Your task to perform on an android device: toggle pop-ups in chrome Image 0: 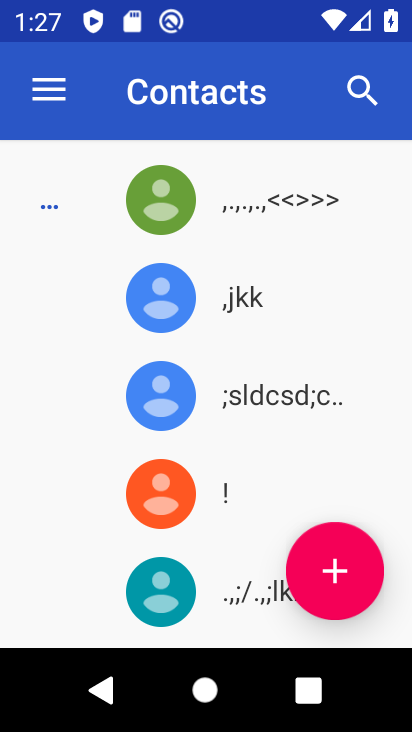
Step 0: press home button
Your task to perform on an android device: toggle pop-ups in chrome Image 1: 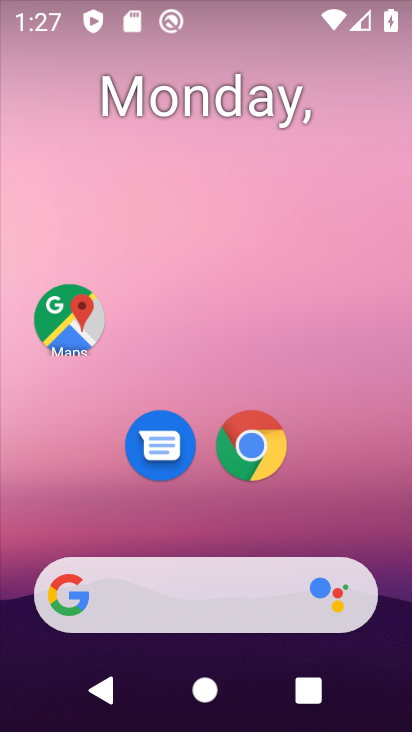
Step 1: click (261, 445)
Your task to perform on an android device: toggle pop-ups in chrome Image 2: 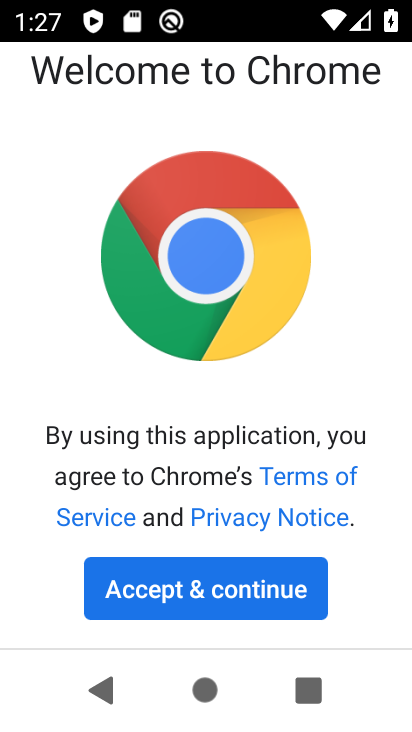
Step 2: click (181, 598)
Your task to perform on an android device: toggle pop-ups in chrome Image 3: 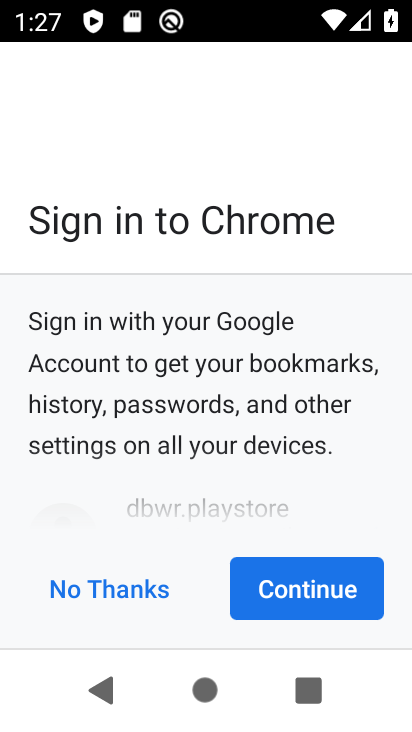
Step 3: click (304, 579)
Your task to perform on an android device: toggle pop-ups in chrome Image 4: 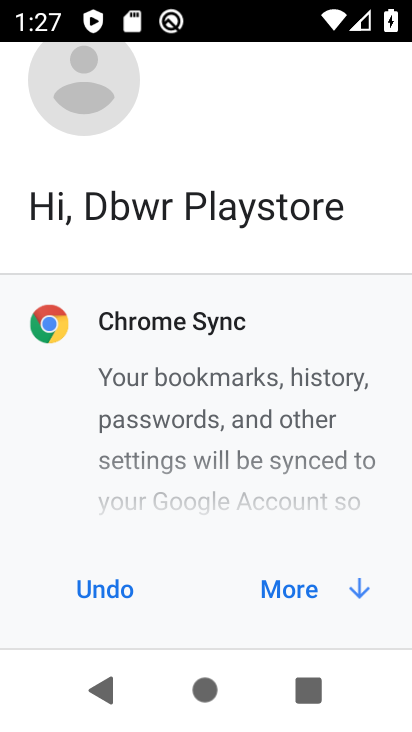
Step 4: click (304, 579)
Your task to perform on an android device: toggle pop-ups in chrome Image 5: 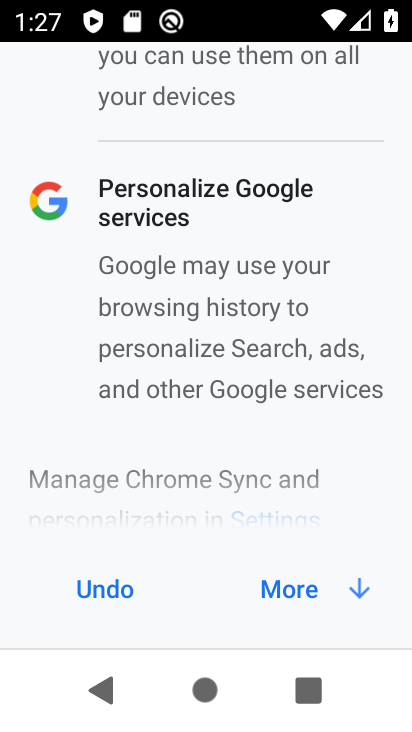
Step 5: click (311, 575)
Your task to perform on an android device: toggle pop-ups in chrome Image 6: 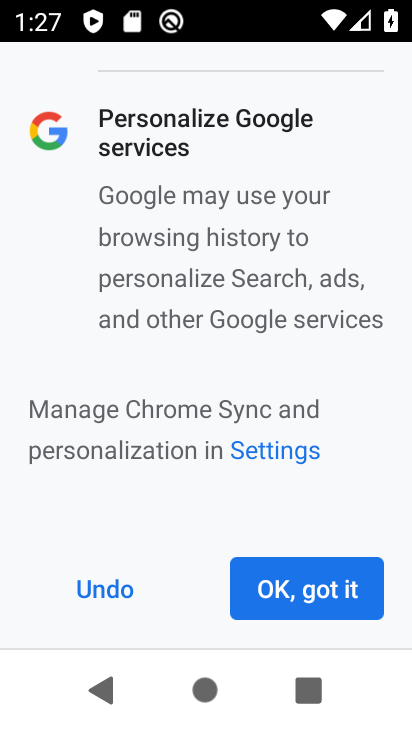
Step 6: click (311, 575)
Your task to perform on an android device: toggle pop-ups in chrome Image 7: 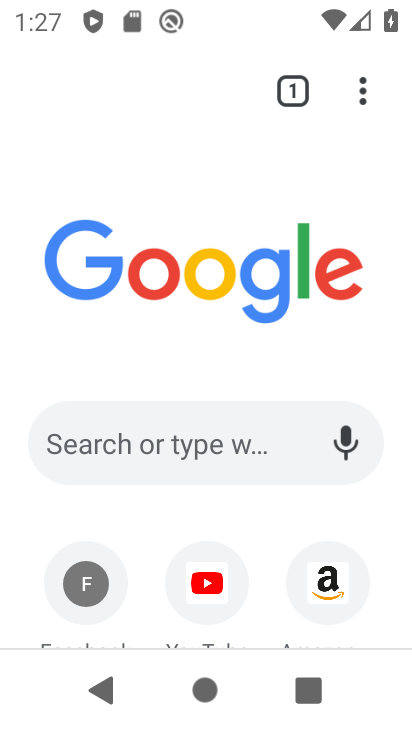
Step 7: click (351, 97)
Your task to perform on an android device: toggle pop-ups in chrome Image 8: 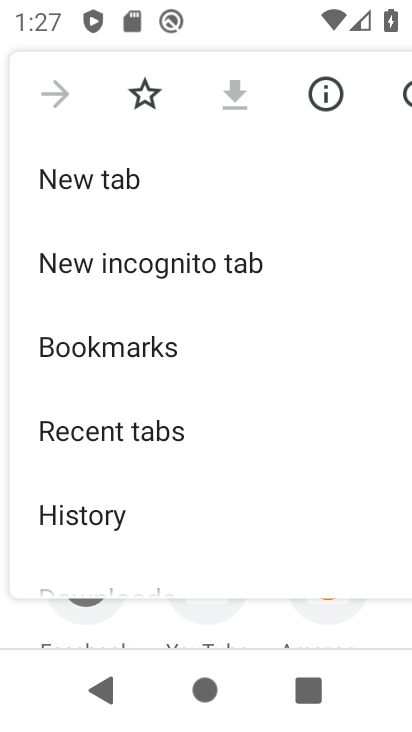
Step 8: drag from (185, 504) to (160, 128)
Your task to perform on an android device: toggle pop-ups in chrome Image 9: 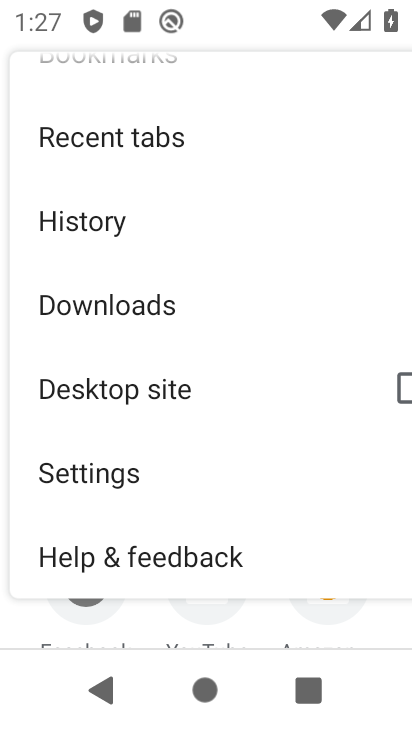
Step 9: click (115, 462)
Your task to perform on an android device: toggle pop-ups in chrome Image 10: 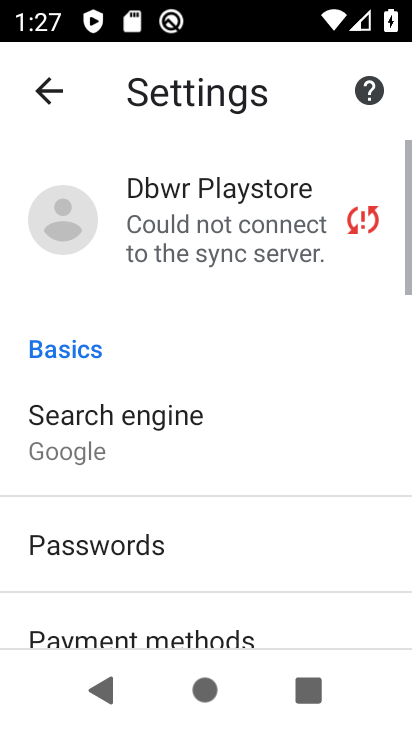
Step 10: drag from (232, 550) to (215, 179)
Your task to perform on an android device: toggle pop-ups in chrome Image 11: 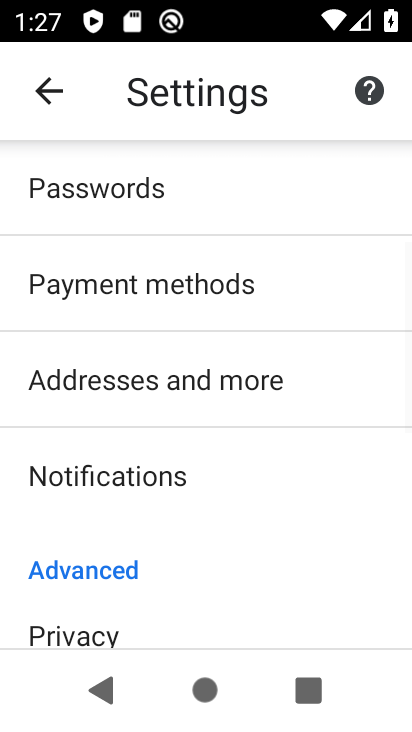
Step 11: drag from (239, 583) to (219, 217)
Your task to perform on an android device: toggle pop-ups in chrome Image 12: 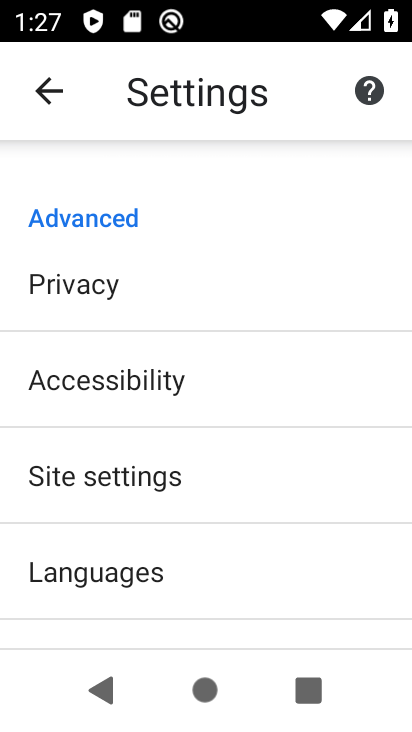
Step 12: click (146, 486)
Your task to perform on an android device: toggle pop-ups in chrome Image 13: 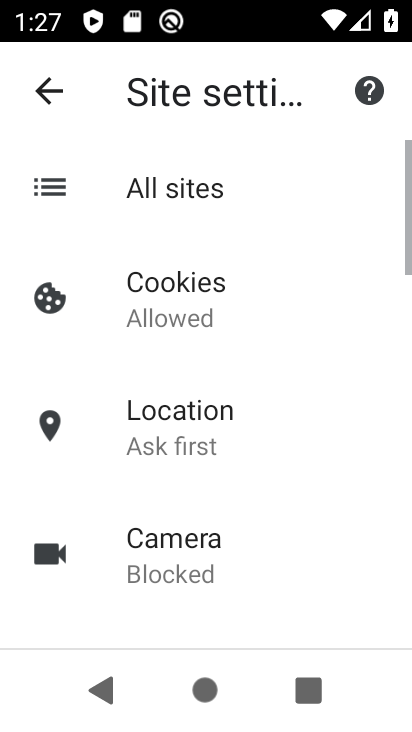
Step 13: drag from (219, 180) to (230, 145)
Your task to perform on an android device: toggle pop-ups in chrome Image 14: 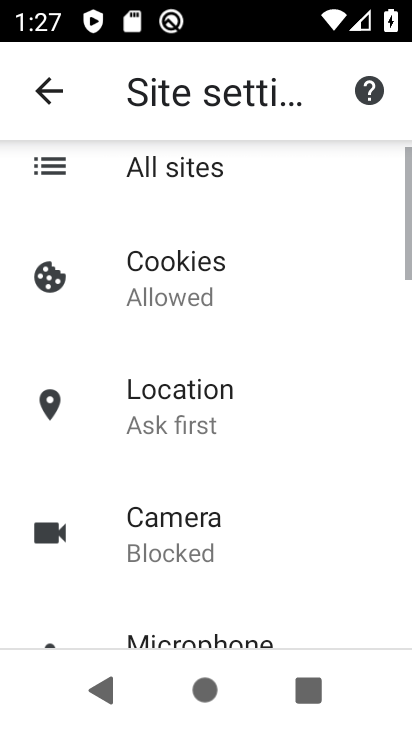
Step 14: drag from (234, 572) to (249, 241)
Your task to perform on an android device: toggle pop-ups in chrome Image 15: 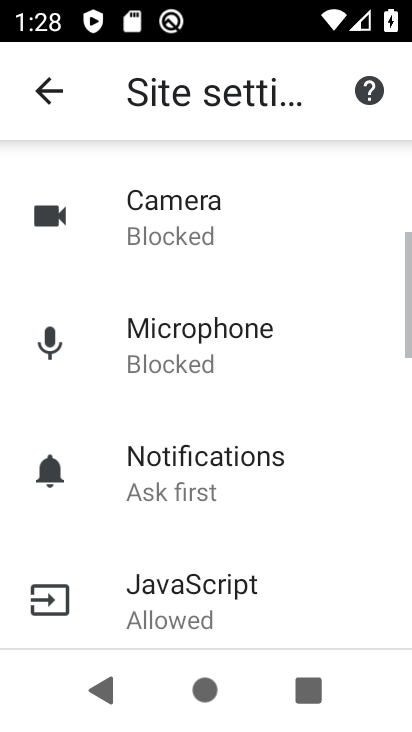
Step 15: drag from (214, 580) to (198, 235)
Your task to perform on an android device: toggle pop-ups in chrome Image 16: 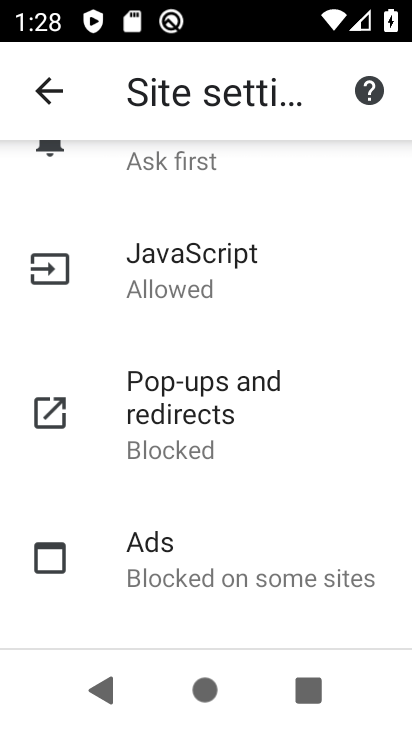
Step 16: click (212, 411)
Your task to perform on an android device: toggle pop-ups in chrome Image 17: 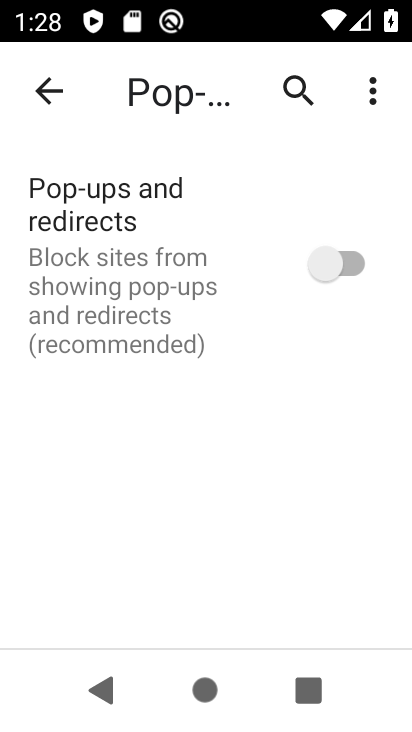
Step 17: click (331, 253)
Your task to perform on an android device: toggle pop-ups in chrome Image 18: 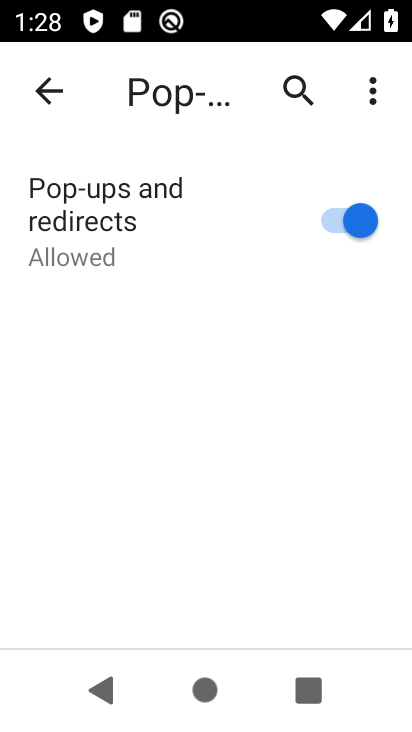
Step 18: task complete